Your task to perform on an android device: What's on my calendar tomorrow? Image 0: 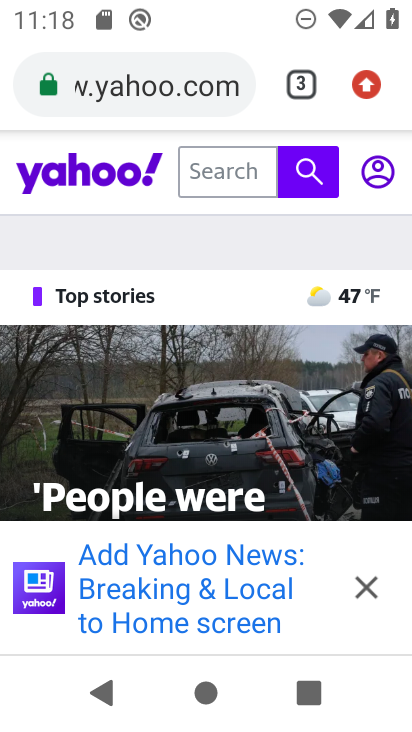
Step 0: press home button
Your task to perform on an android device: What's on my calendar tomorrow? Image 1: 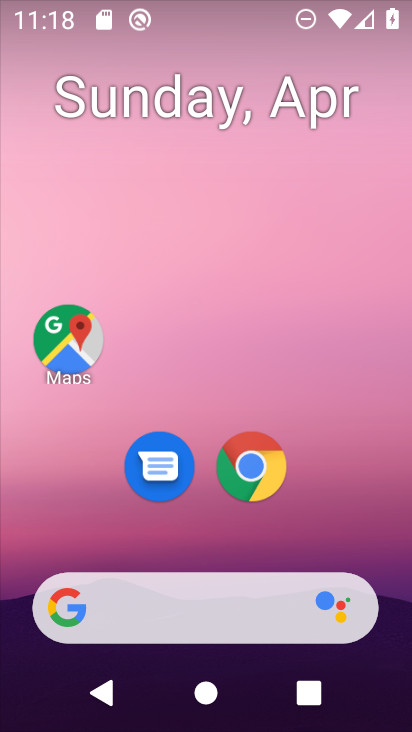
Step 1: drag from (353, 533) to (353, 124)
Your task to perform on an android device: What's on my calendar tomorrow? Image 2: 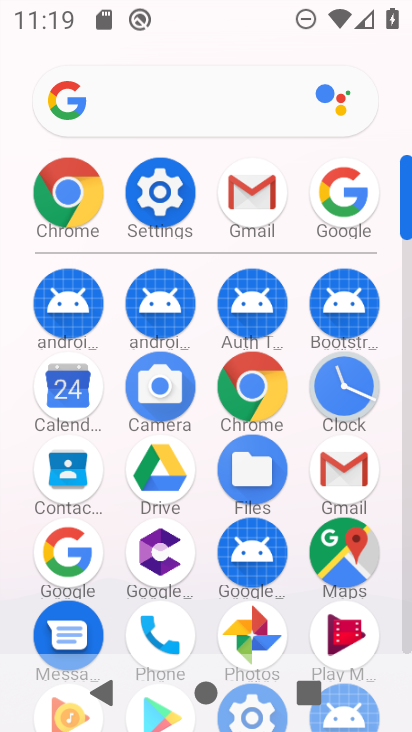
Step 2: click (59, 409)
Your task to perform on an android device: What's on my calendar tomorrow? Image 3: 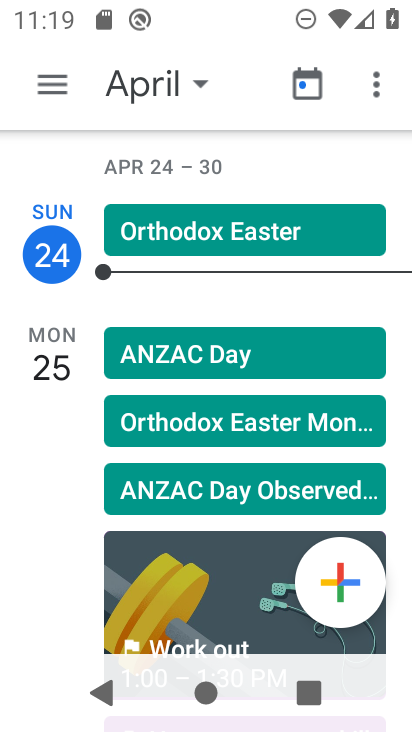
Step 3: click (203, 87)
Your task to perform on an android device: What's on my calendar tomorrow? Image 4: 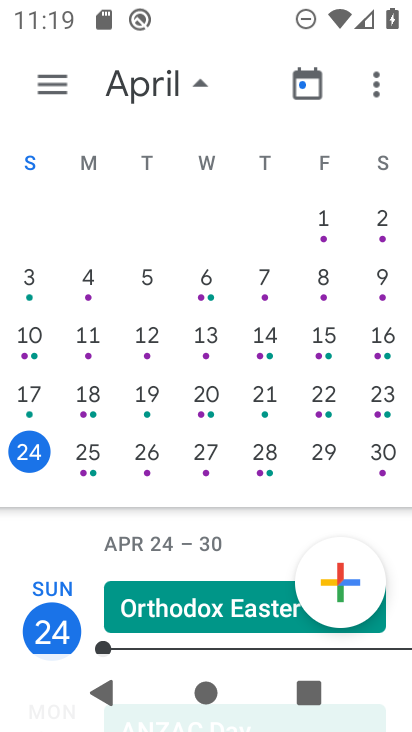
Step 4: click (154, 460)
Your task to perform on an android device: What's on my calendar tomorrow? Image 5: 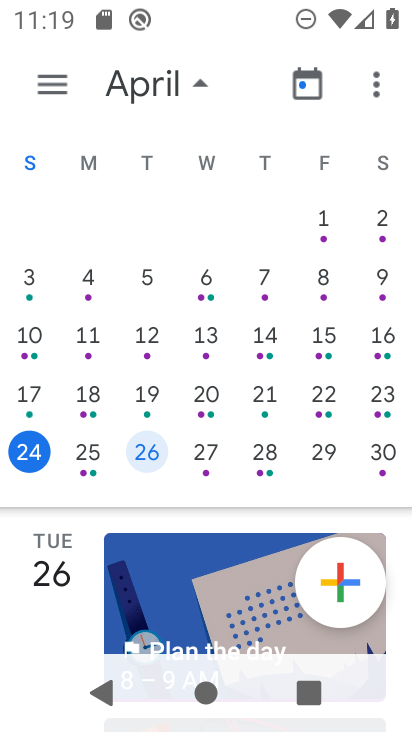
Step 5: drag from (257, 510) to (246, 214)
Your task to perform on an android device: What's on my calendar tomorrow? Image 6: 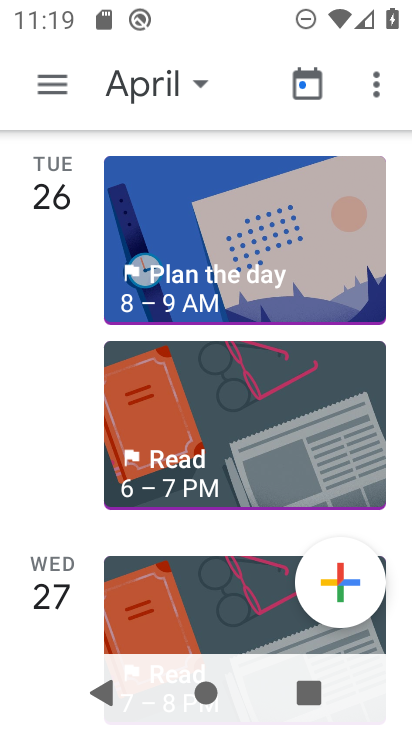
Step 6: click (245, 257)
Your task to perform on an android device: What's on my calendar tomorrow? Image 7: 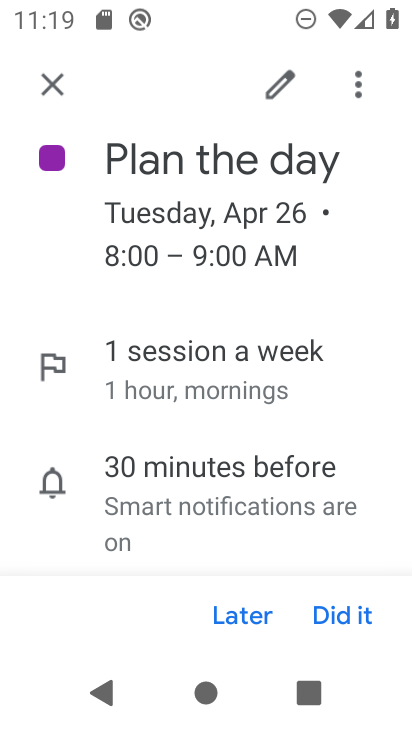
Step 7: task complete